Your task to perform on an android device: add a contact in the contacts app Image 0: 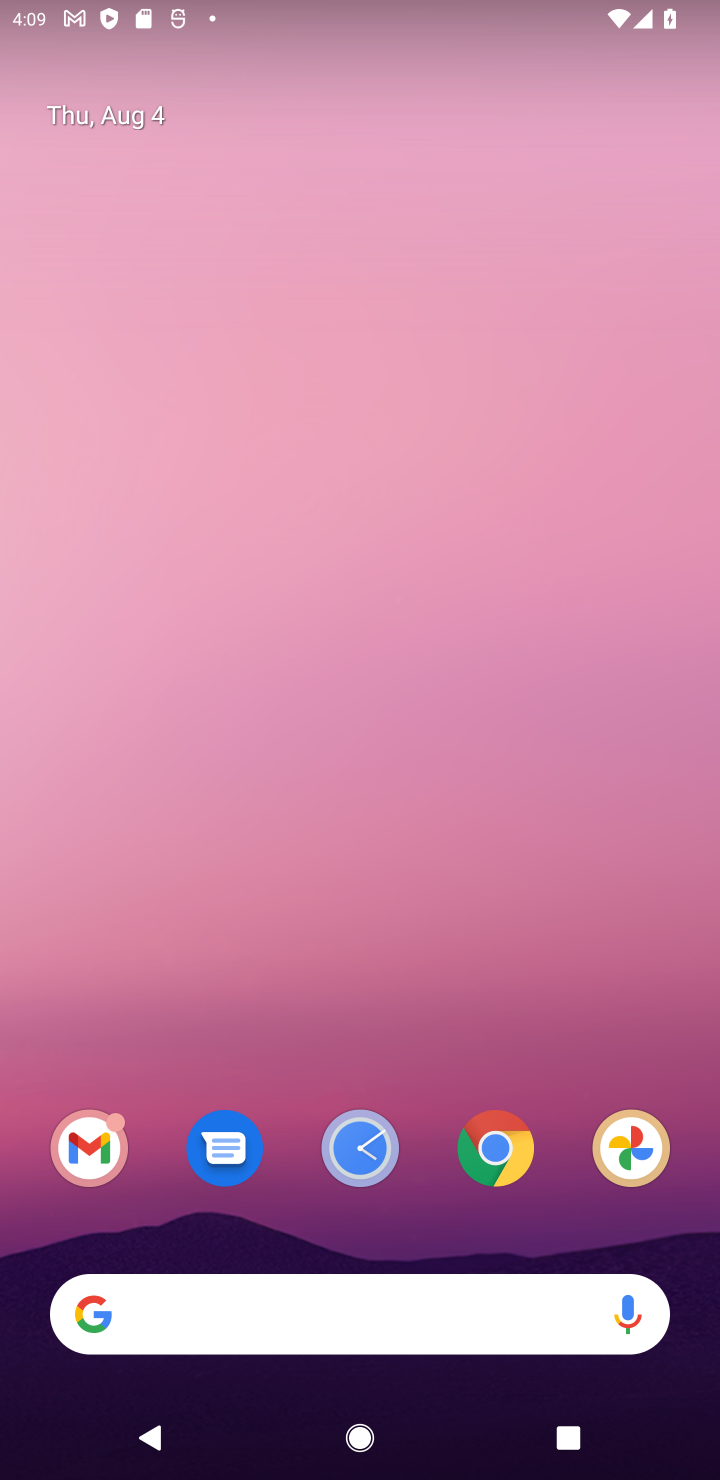
Step 0: drag from (545, 1201) to (547, 436)
Your task to perform on an android device: add a contact in the contacts app Image 1: 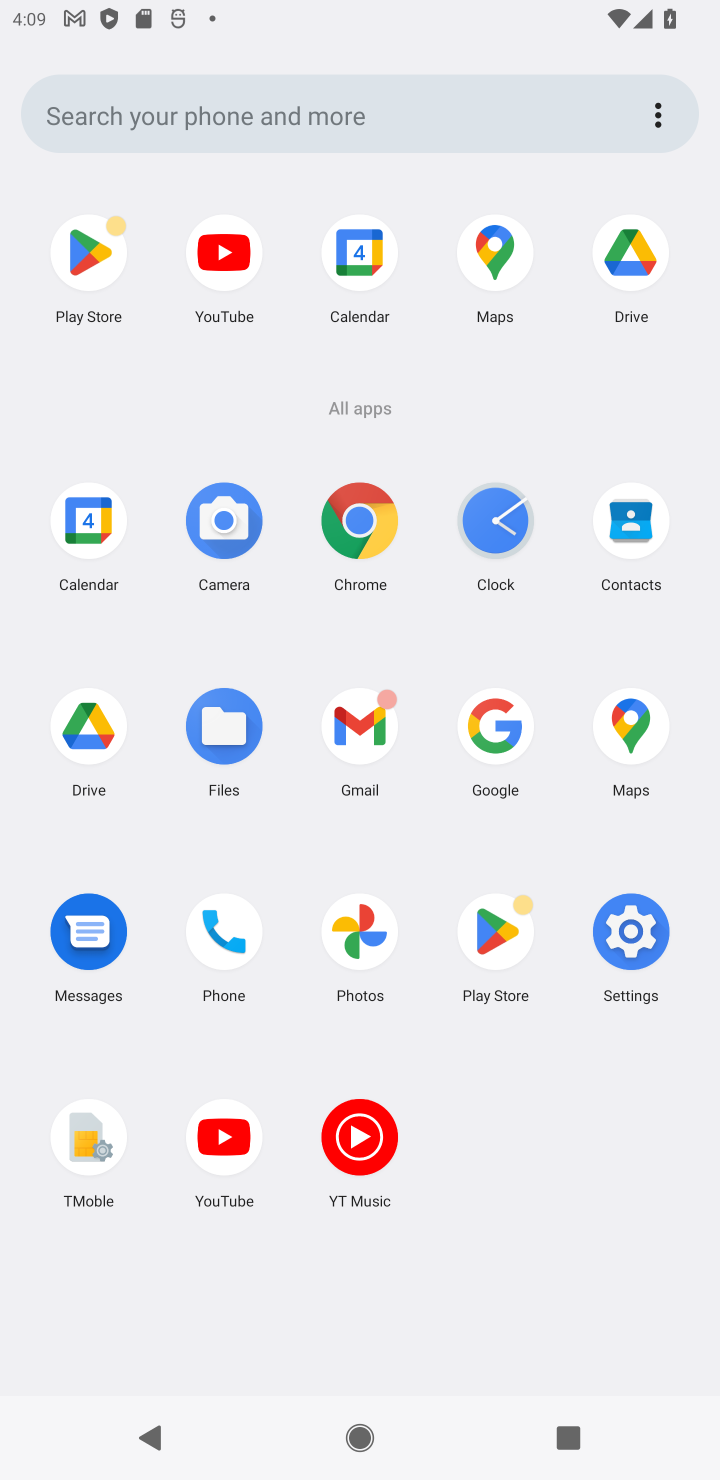
Step 1: click (629, 517)
Your task to perform on an android device: add a contact in the contacts app Image 2: 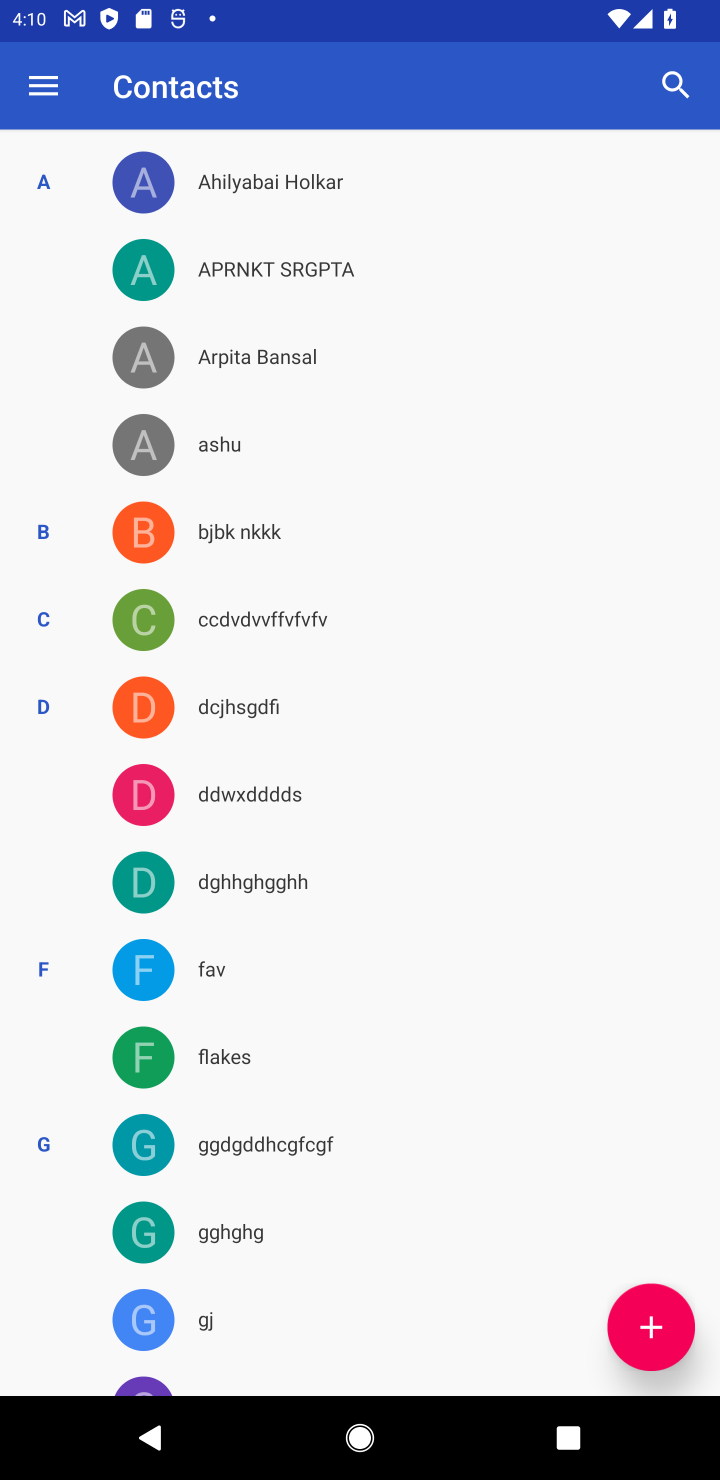
Step 2: click (653, 1323)
Your task to perform on an android device: add a contact in the contacts app Image 3: 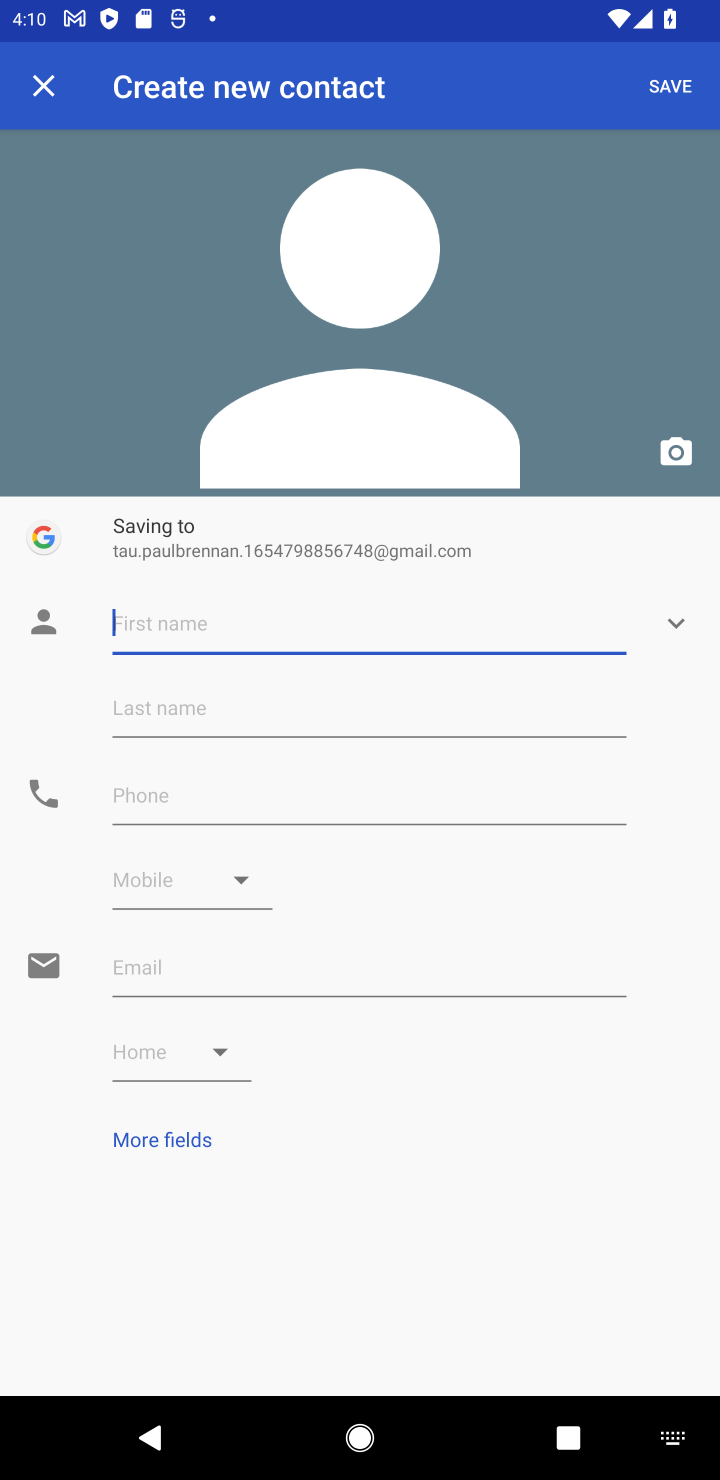
Step 3: type "yuyjghmmm"
Your task to perform on an android device: add a contact in the contacts app Image 4: 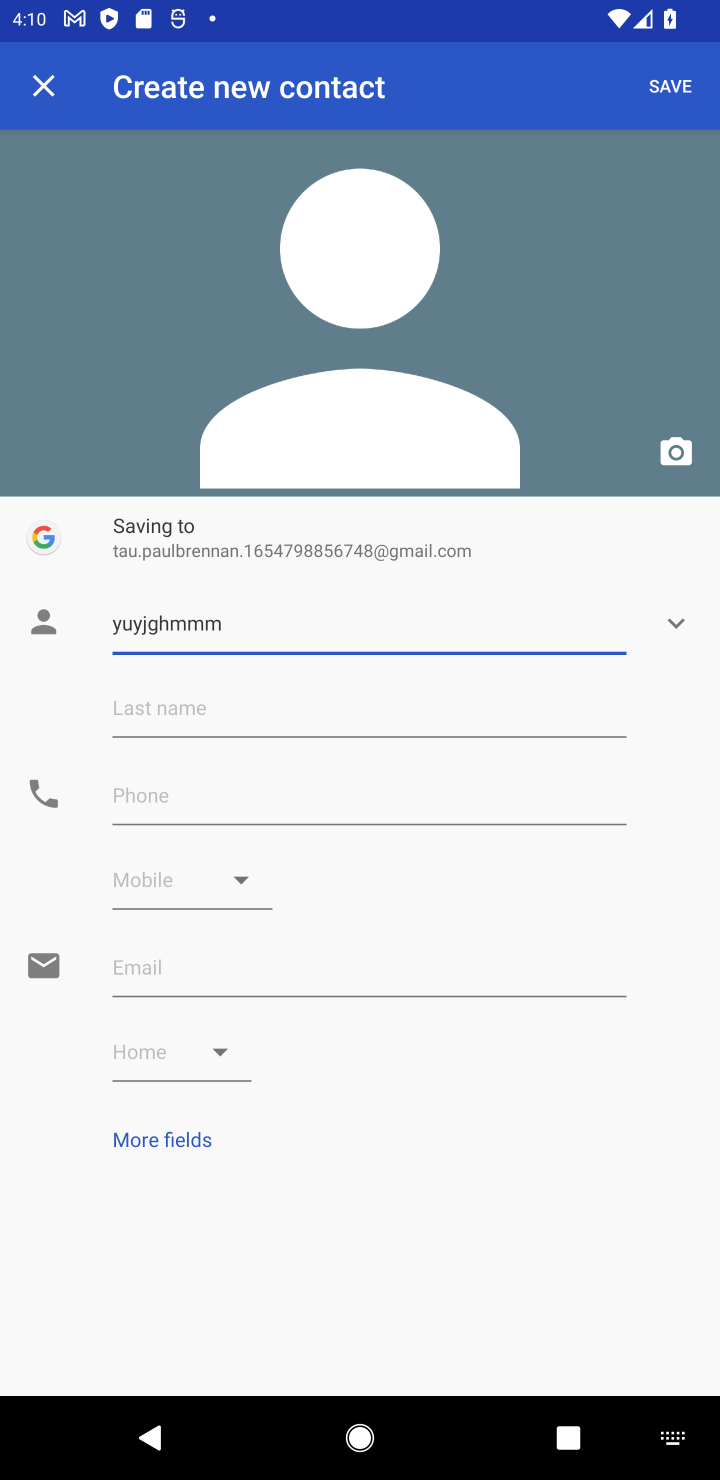
Step 4: click (155, 806)
Your task to perform on an android device: add a contact in the contacts app Image 5: 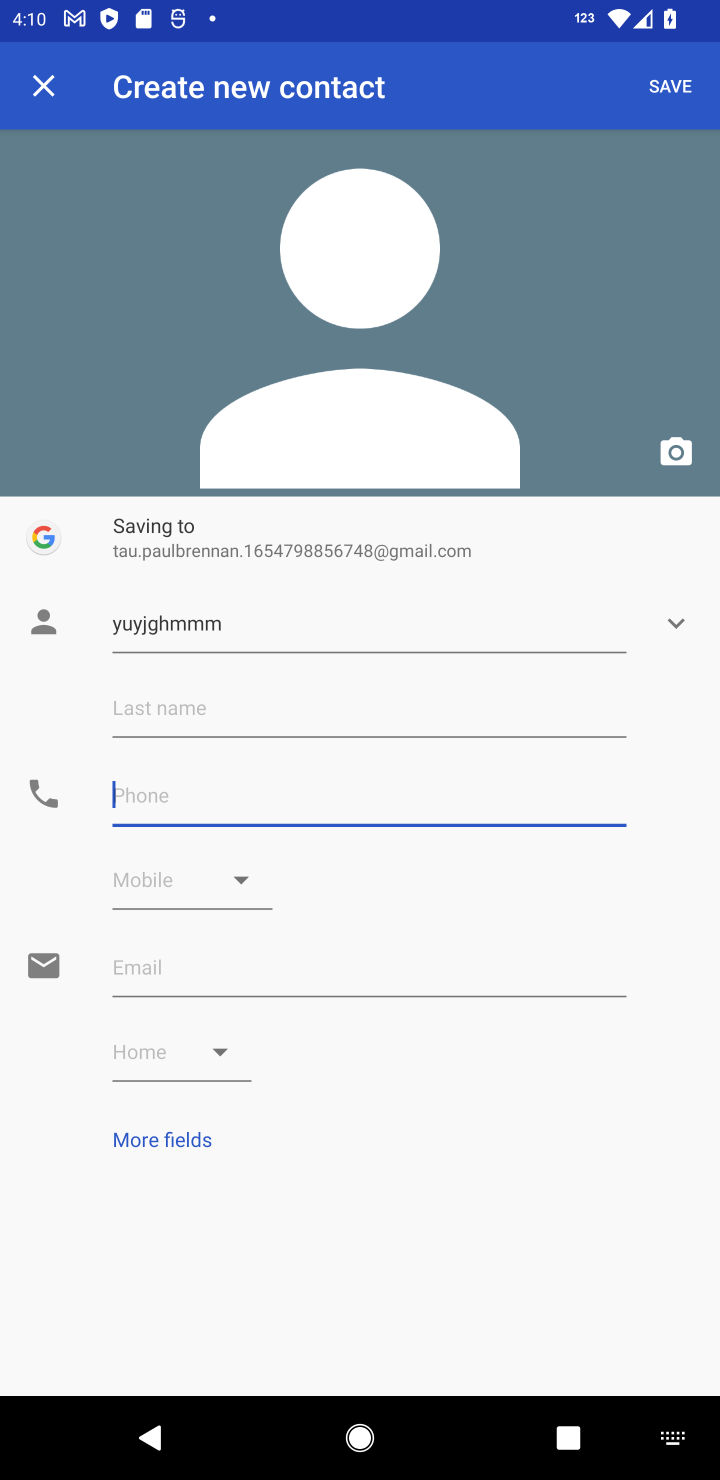
Step 5: type "0986786564"
Your task to perform on an android device: add a contact in the contacts app Image 6: 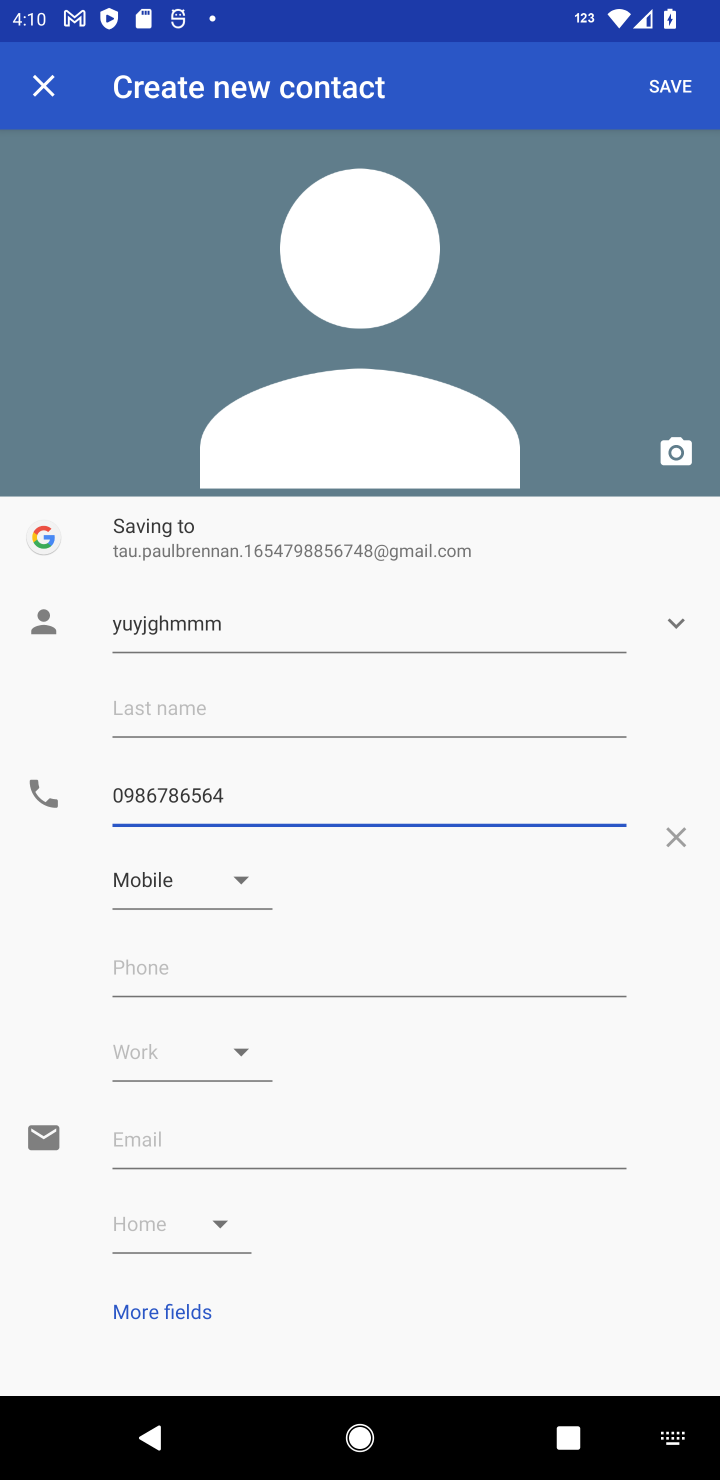
Step 6: click (665, 88)
Your task to perform on an android device: add a contact in the contacts app Image 7: 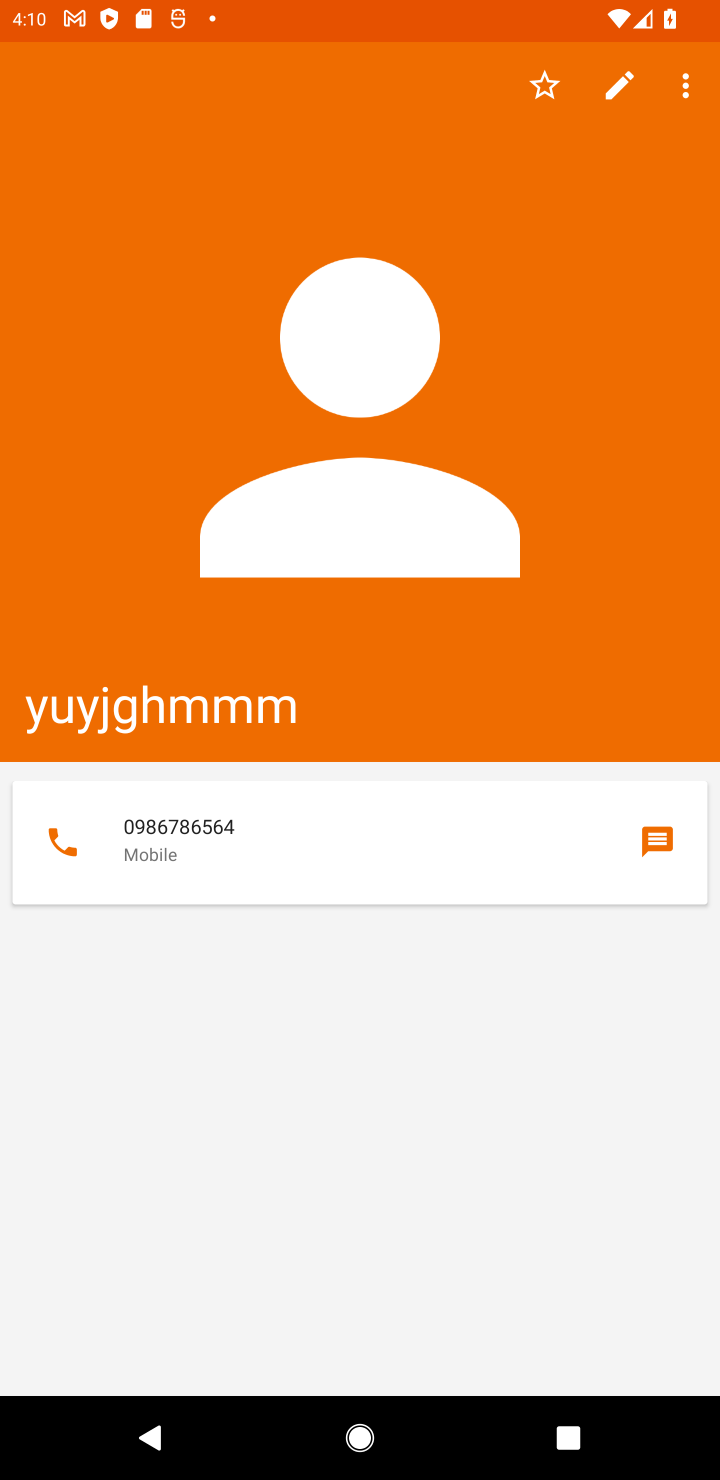
Step 7: task complete